Your task to perform on an android device: find which apps use the phone's location Image 0: 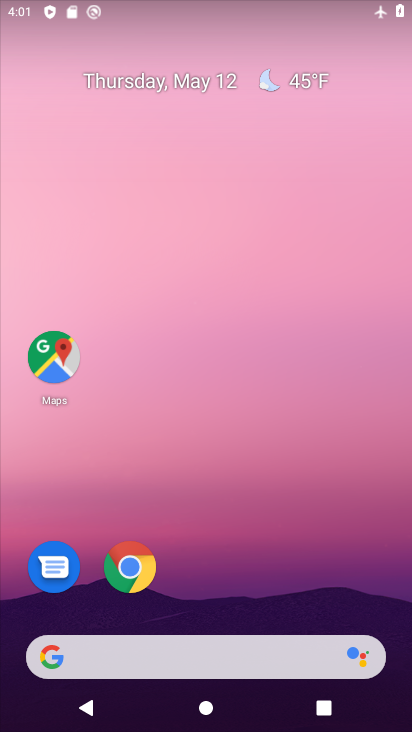
Step 0: drag from (216, 586) to (267, 191)
Your task to perform on an android device: find which apps use the phone's location Image 1: 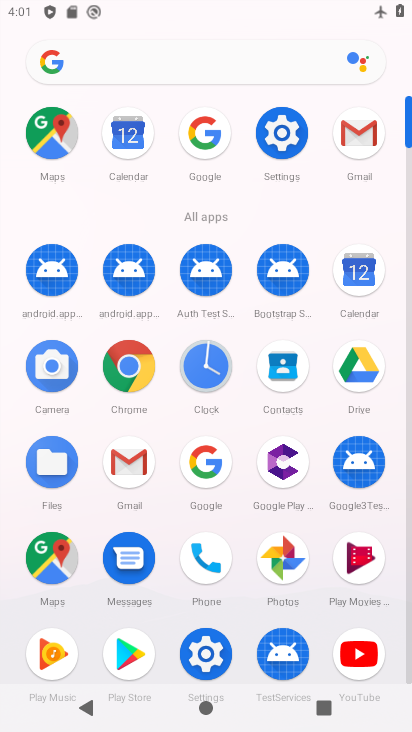
Step 1: click (278, 149)
Your task to perform on an android device: find which apps use the phone's location Image 2: 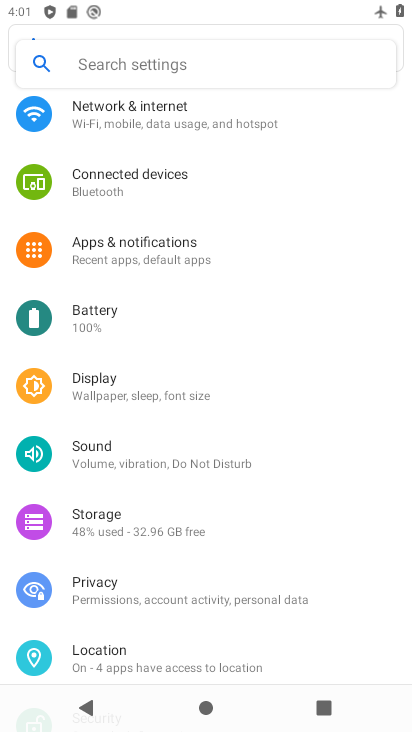
Step 2: click (180, 650)
Your task to perform on an android device: find which apps use the phone's location Image 3: 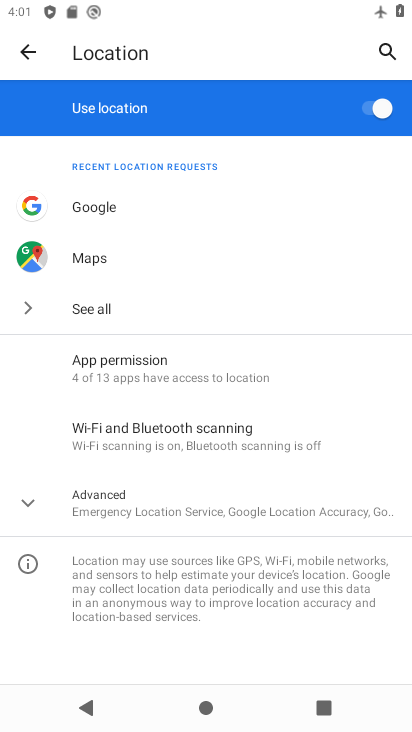
Step 3: click (144, 361)
Your task to perform on an android device: find which apps use the phone's location Image 4: 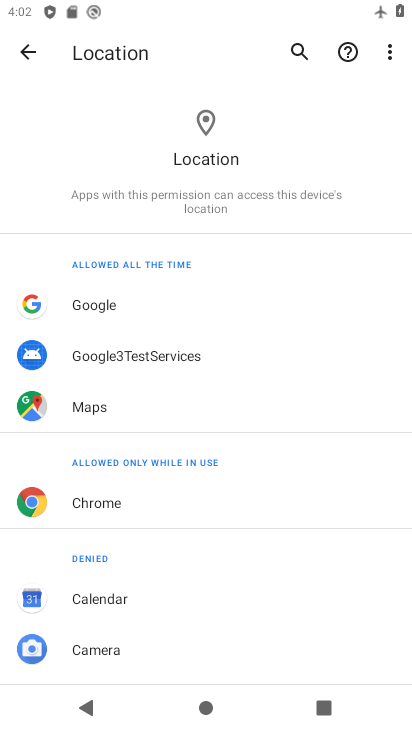
Step 4: task complete